Your task to perform on an android device: Is it going to rain today? Image 0: 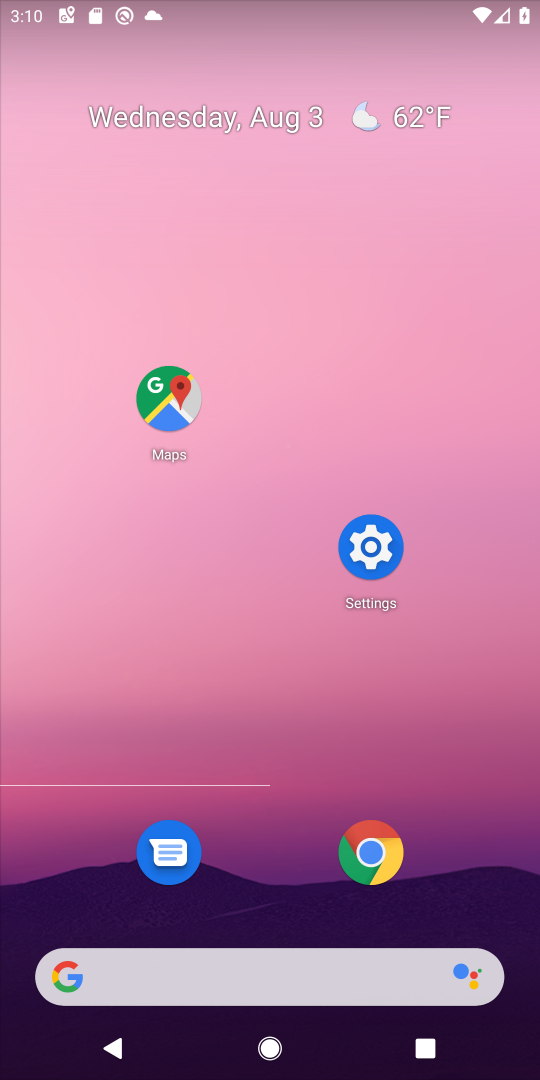
Step 0: click (175, 967)
Your task to perform on an android device: Is it going to rain today? Image 1: 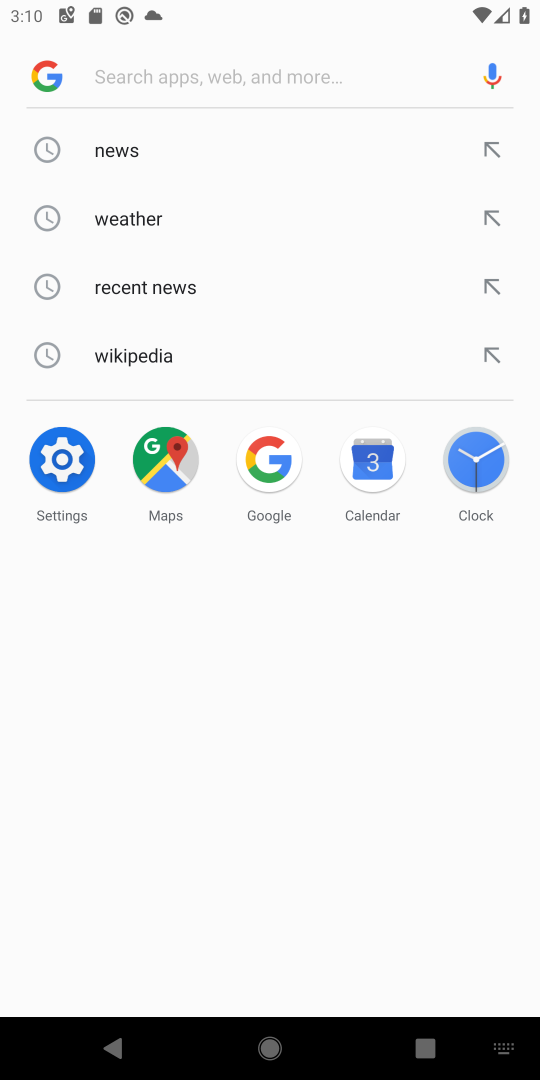
Step 1: click (125, 220)
Your task to perform on an android device: Is it going to rain today? Image 2: 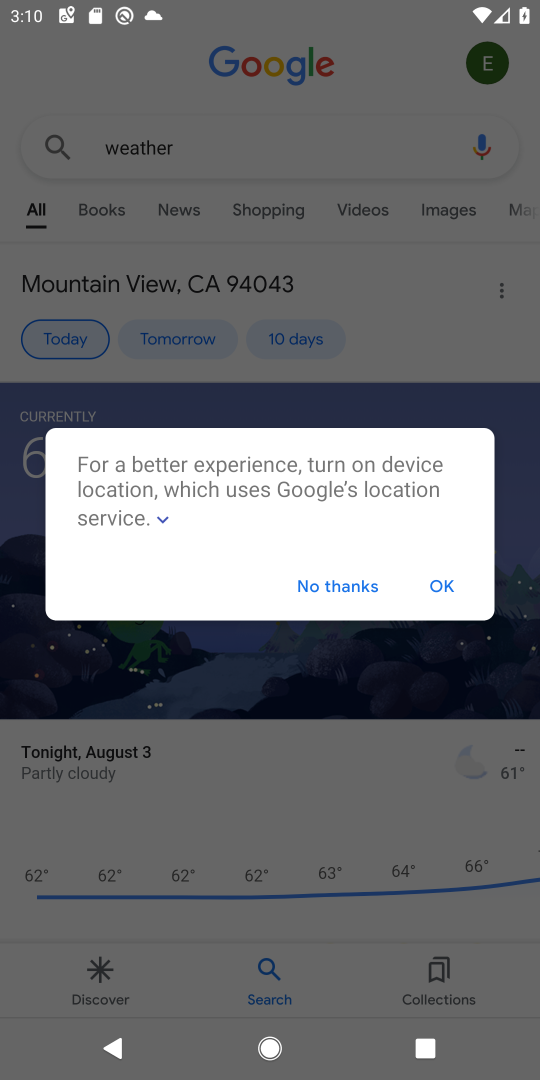
Step 2: click (443, 588)
Your task to perform on an android device: Is it going to rain today? Image 3: 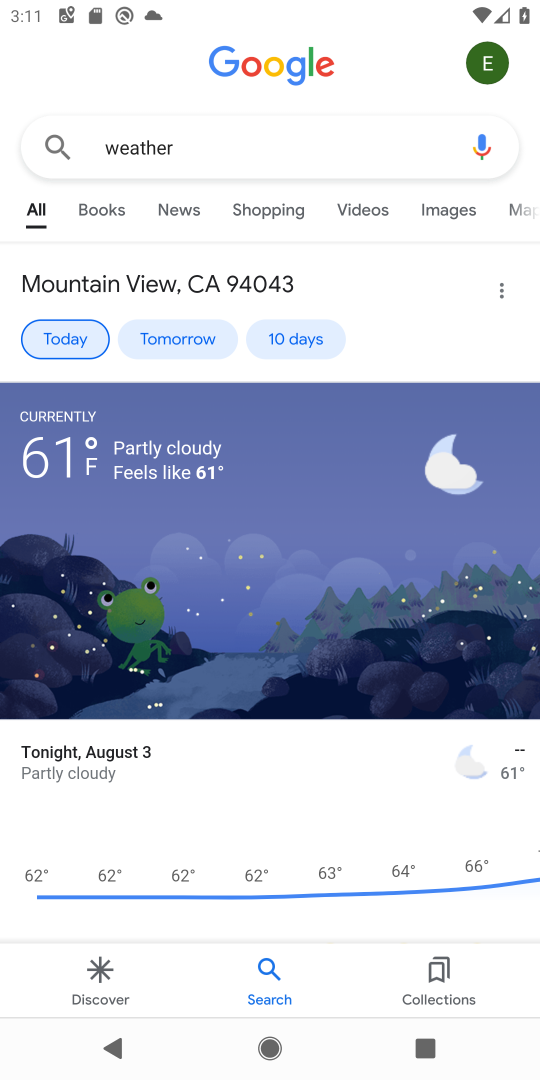
Step 3: task complete